Your task to perform on an android device: show emergency info Image 0: 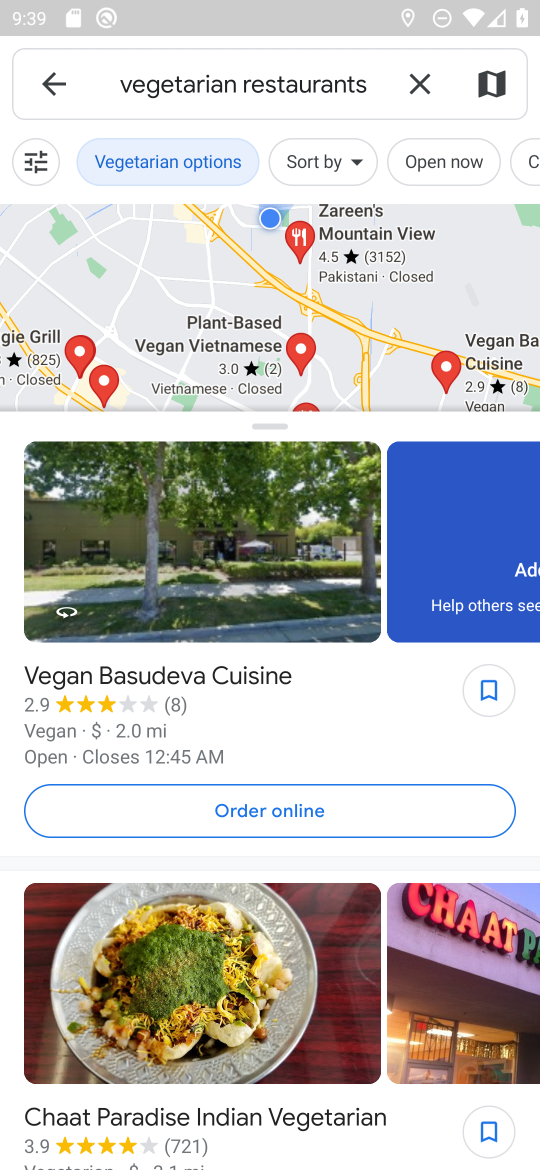
Step 0: press home button
Your task to perform on an android device: show emergency info Image 1: 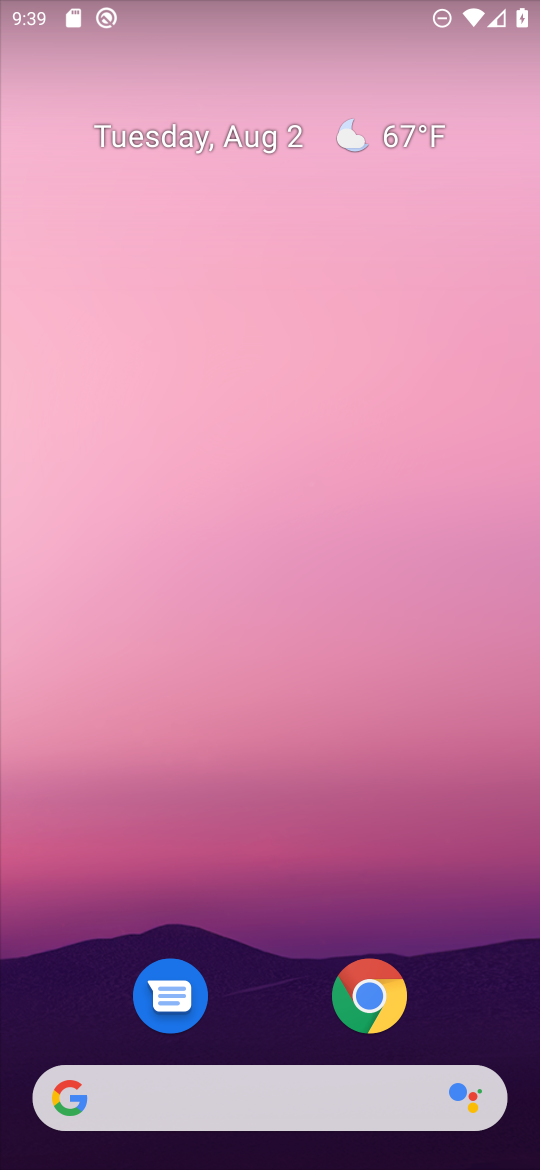
Step 1: drag from (253, 921) to (445, 46)
Your task to perform on an android device: show emergency info Image 2: 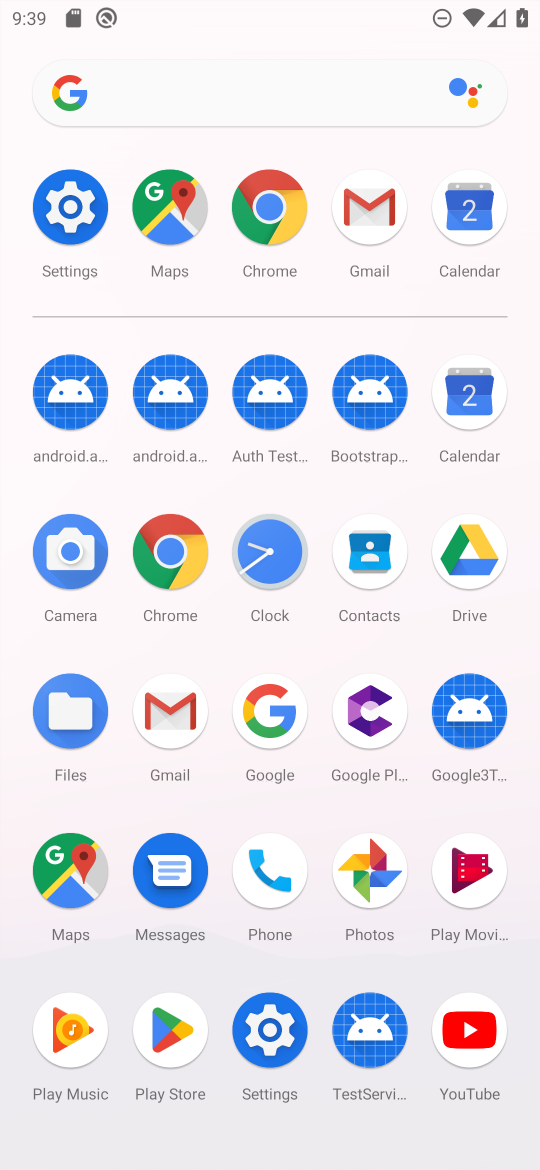
Step 2: click (276, 1029)
Your task to perform on an android device: show emergency info Image 3: 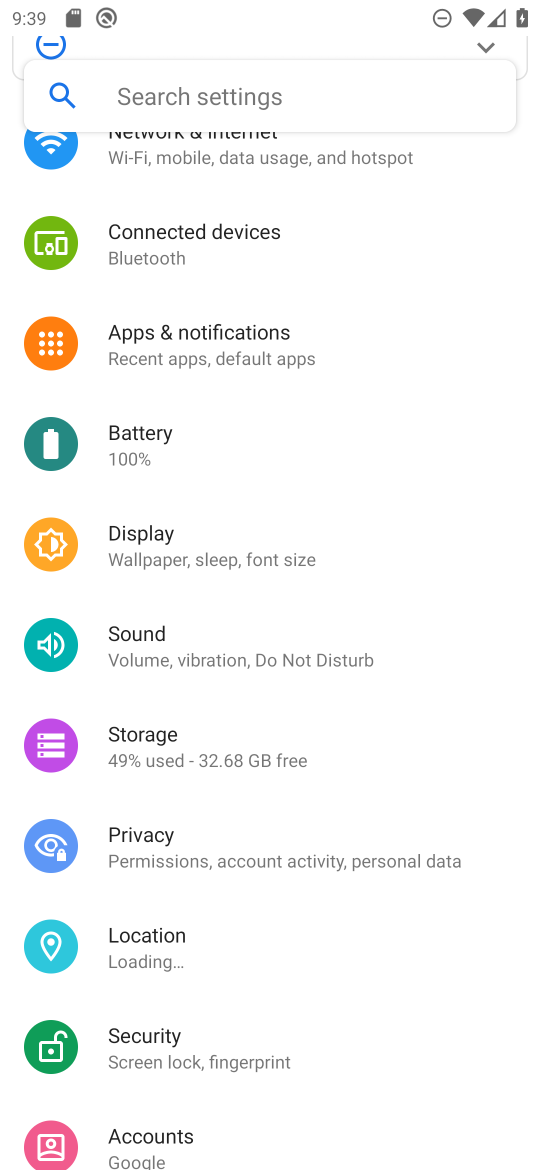
Step 3: drag from (376, 1105) to (537, 174)
Your task to perform on an android device: show emergency info Image 4: 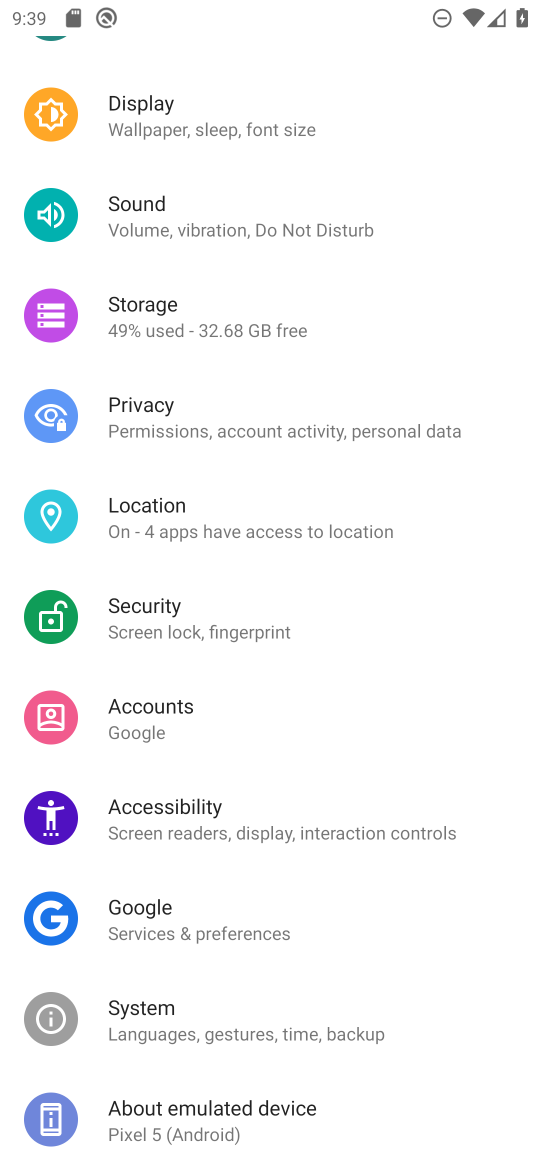
Step 4: click (179, 1112)
Your task to perform on an android device: show emergency info Image 5: 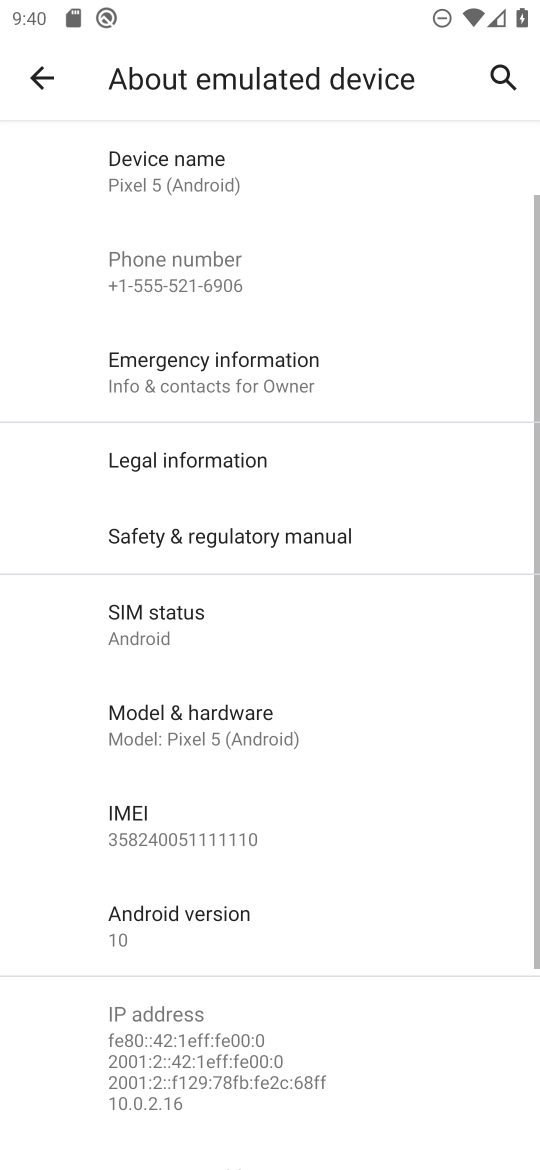
Step 5: click (191, 393)
Your task to perform on an android device: show emergency info Image 6: 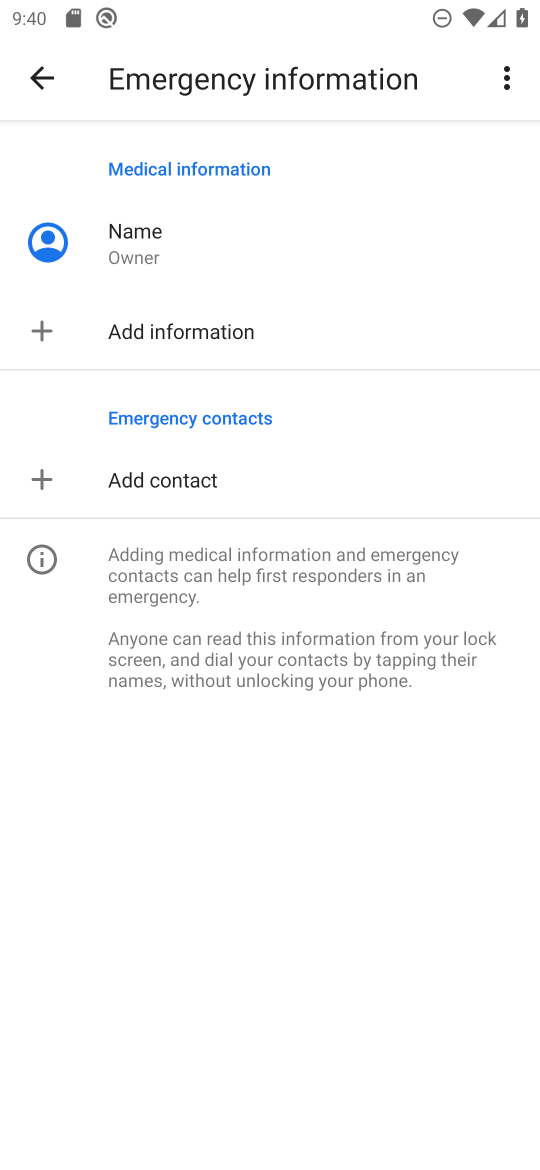
Step 6: task complete